Your task to perform on an android device: turn pop-ups off in chrome Image 0: 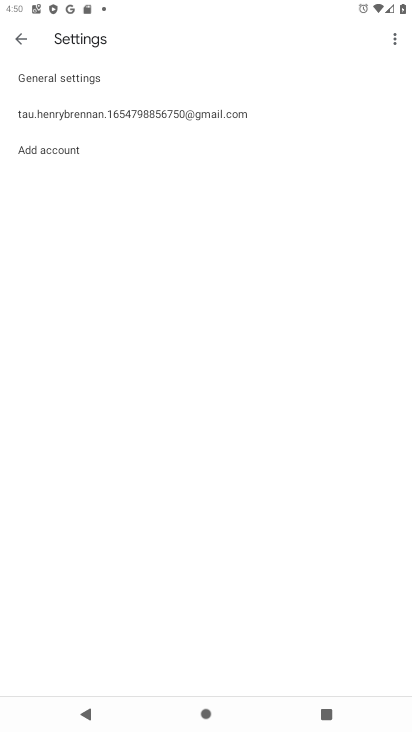
Step 0: press home button
Your task to perform on an android device: turn pop-ups off in chrome Image 1: 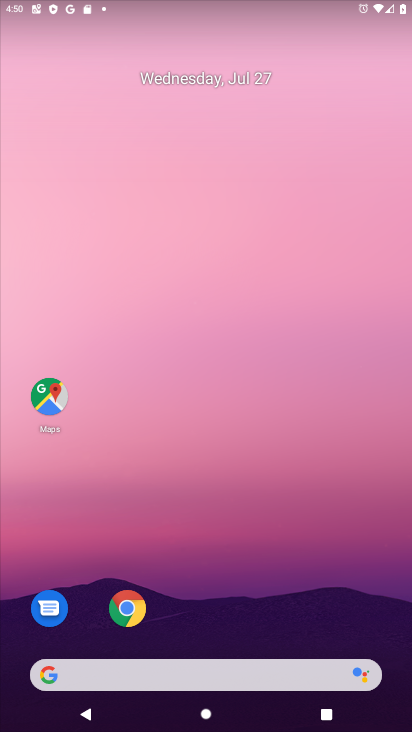
Step 1: drag from (215, 664) to (135, 63)
Your task to perform on an android device: turn pop-ups off in chrome Image 2: 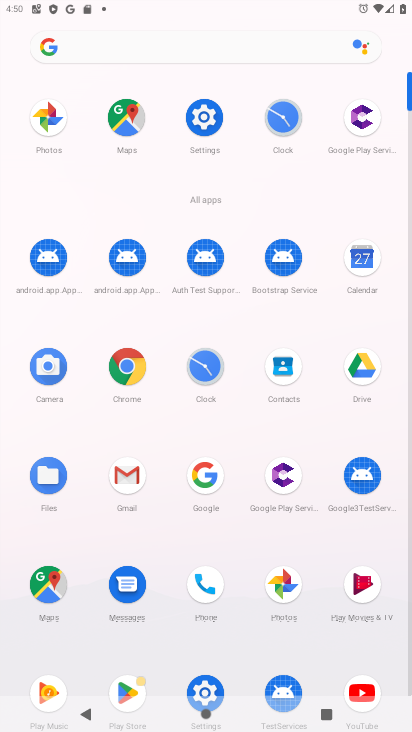
Step 2: click (127, 378)
Your task to perform on an android device: turn pop-ups off in chrome Image 3: 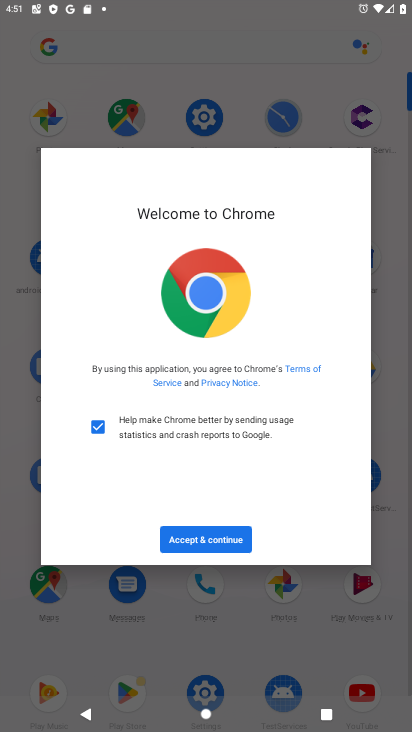
Step 3: click (191, 530)
Your task to perform on an android device: turn pop-ups off in chrome Image 4: 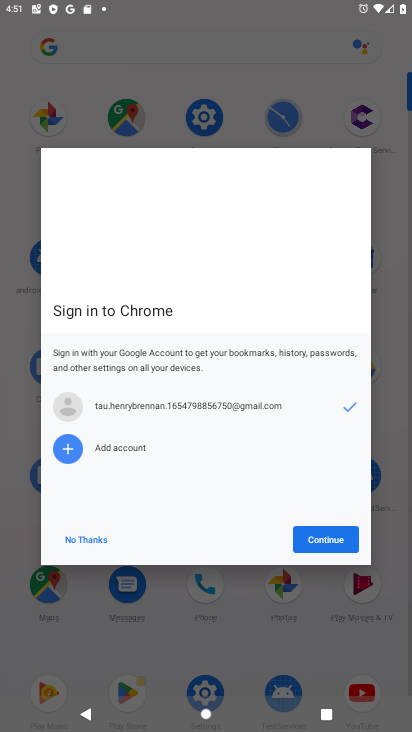
Step 4: click (339, 544)
Your task to perform on an android device: turn pop-ups off in chrome Image 5: 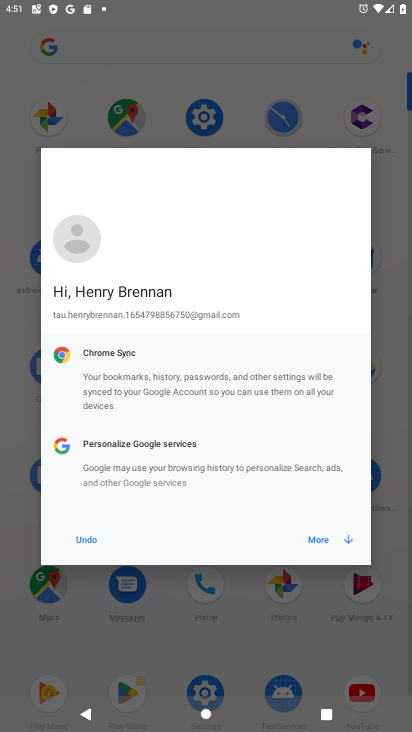
Step 5: click (339, 544)
Your task to perform on an android device: turn pop-ups off in chrome Image 6: 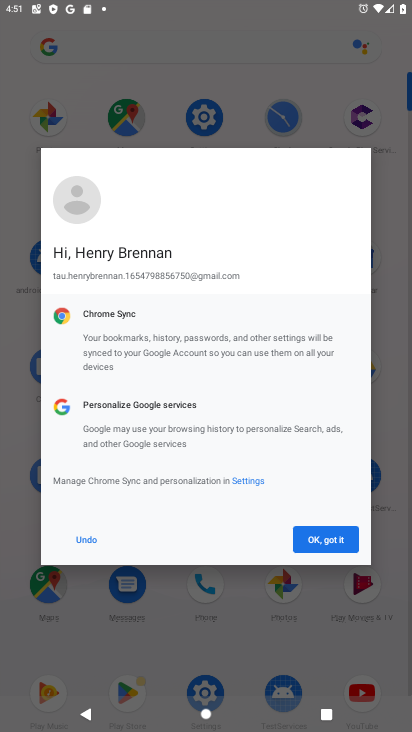
Step 6: click (339, 544)
Your task to perform on an android device: turn pop-ups off in chrome Image 7: 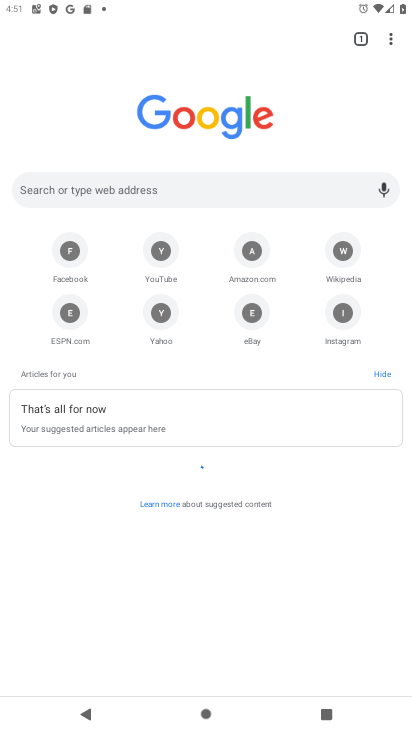
Step 7: click (396, 37)
Your task to perform on an android device: turn pop-ups off in chrome Image 8: 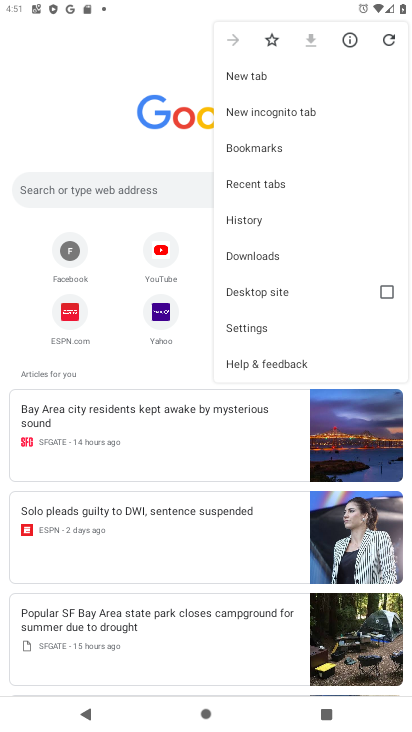
Step 8: click (229, 322)
Your task to perform on an android device: turn pop-ups off in chrome Image 9: 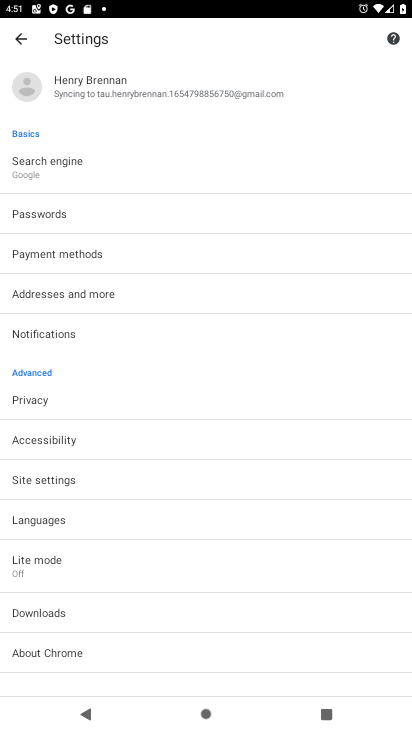
Step 9: click (50, 472)
Your task to perform on an android device: turn pop-ups off in chrome Image 10: 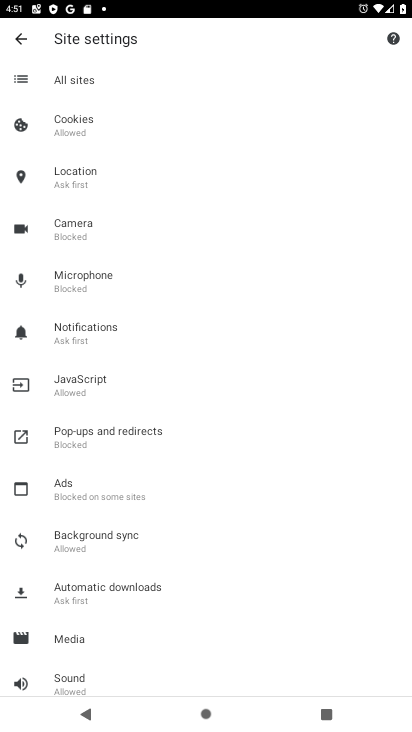
Step 10: click (68, 424)
Your task to perform on an android device: turn pop-ups off in chrome Image 11: 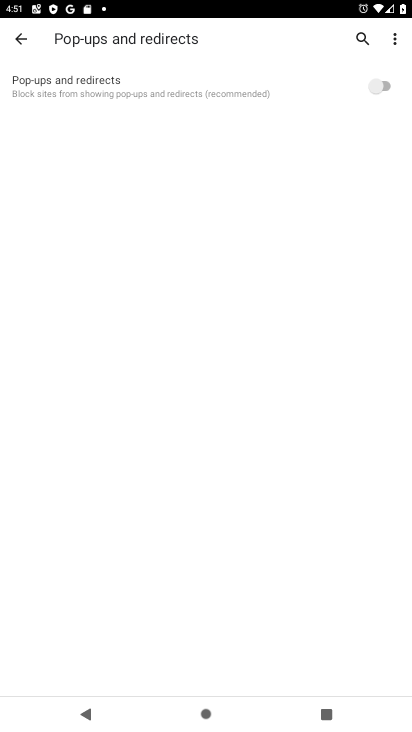
Step 11: click (374, 78)
Your task to perform on an android device: turn pop-ups off in chrome Image 12: 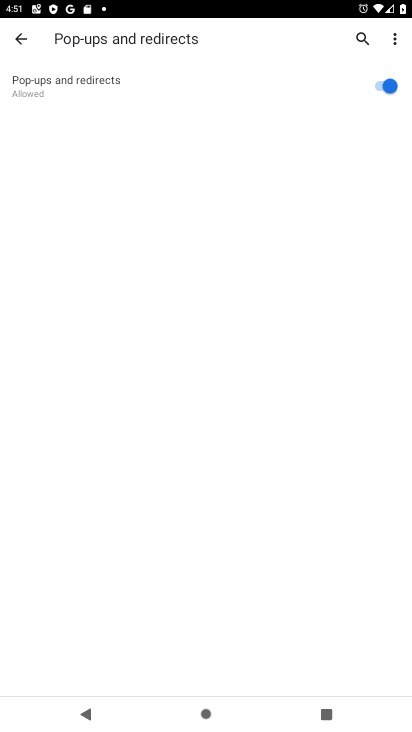
Step 12: click (374, 78)
Your task to perform on an android device: turn pop-ups off in chrome Image 13: 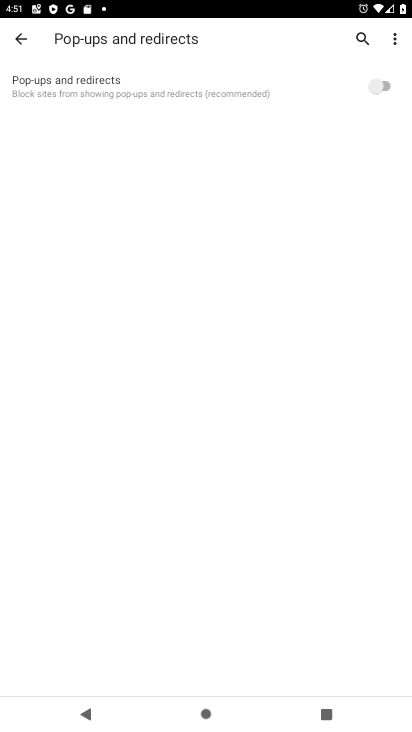
Step 13: task complete